Your task to perform on an android device: toggle improve location accuracy Image 0: 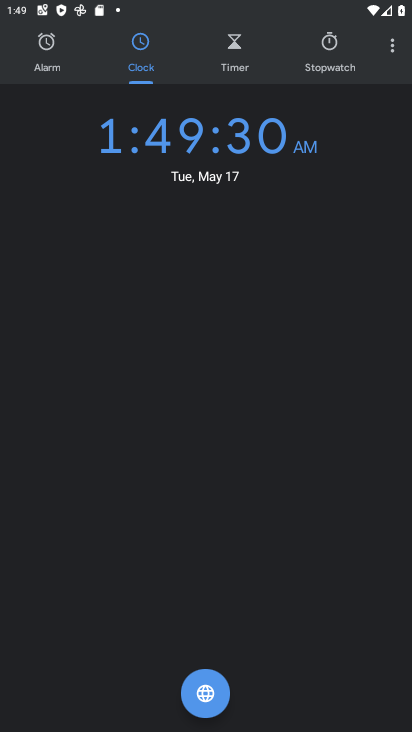
Step 0: press home button
Your task to perform on an android device: toggle improve location accuracy Image 1: 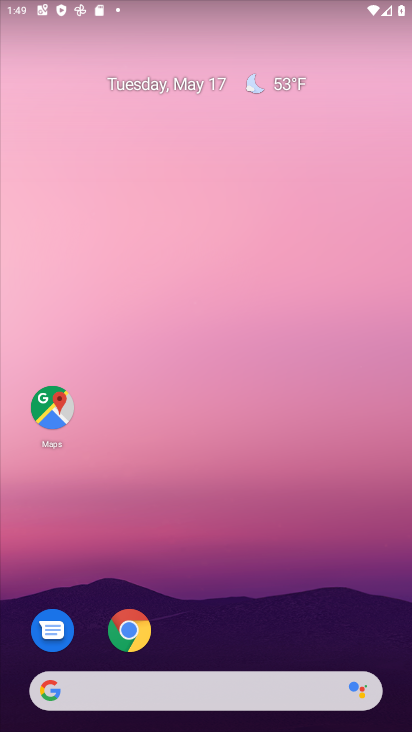
Step 1: drag from (308, 572) to (351, 272)
Your task to perform on an android device: toggle improve location accuracy Image 2: 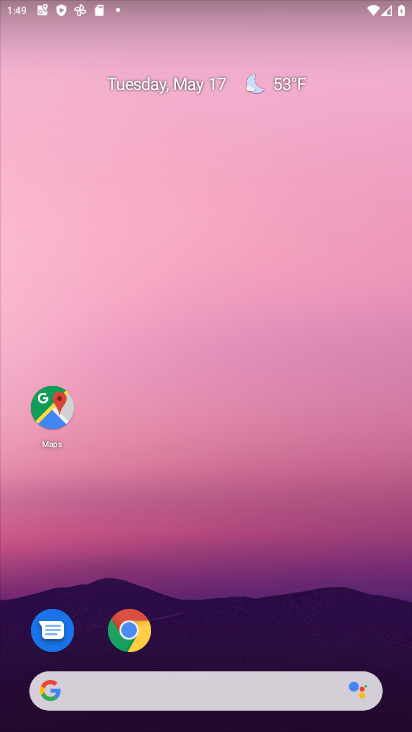
Step 2: drag from (234, 616) to (258, 198)
Your task to perform on an android device: toggle improve location accuracy Image 3: 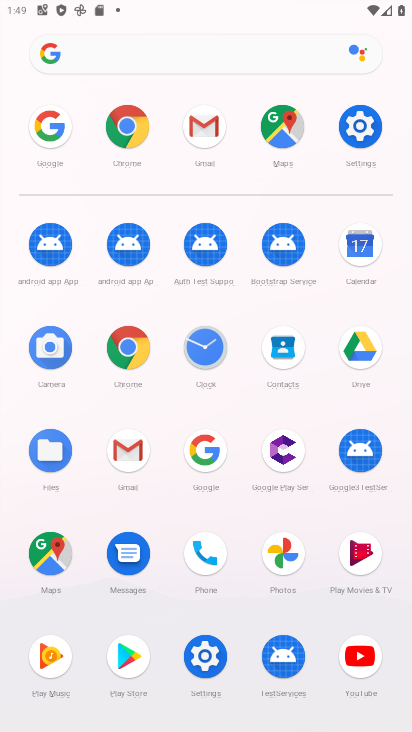
Step 3: click (377, 132)
Your task to perform on an android device: toggle improve location accuracy Image 4: 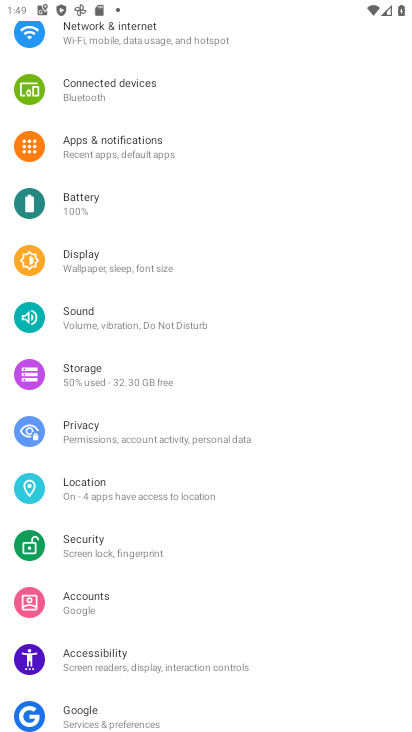
Step 4: click (166, 495)
Your task to perform on an android device: toggle improve location accuracy Image 5: 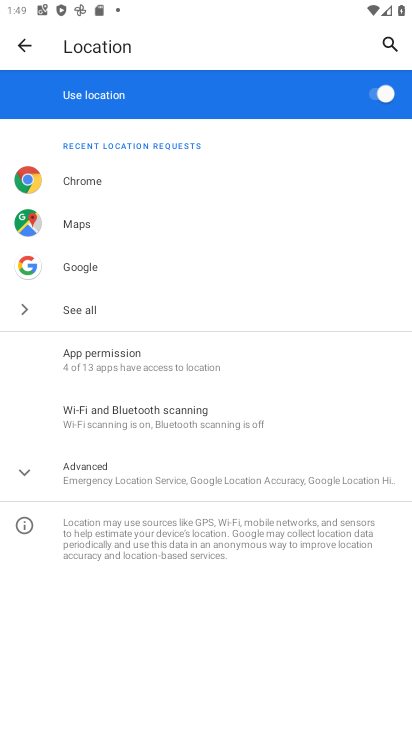
Step 5: click (164, 483)
Your task to perform on an android device: toggle improve location accuracy Image 6: 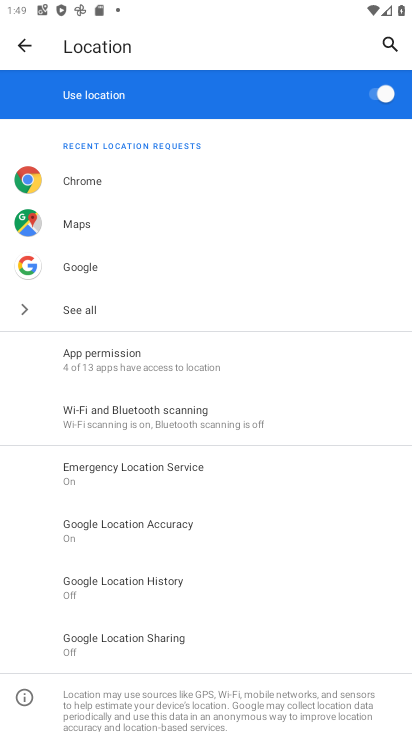
Step 6: click (149, 531)
Your task to perform on an android device: toggle improve location accuracy Image 7: 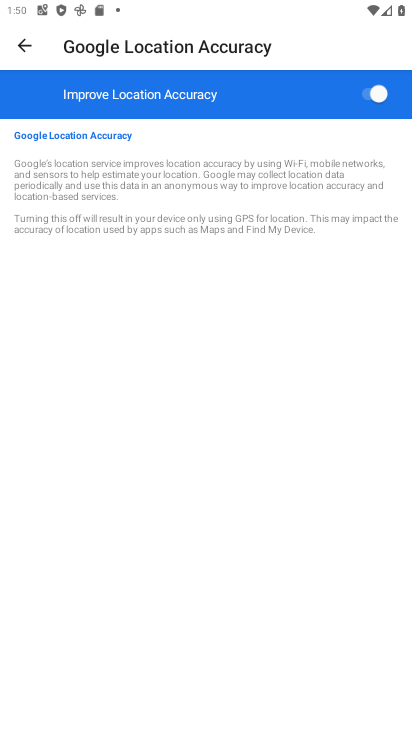
Step 7: click (378, 95)
Your task to perform on an android device: toggle improve location accuracy Image 8: 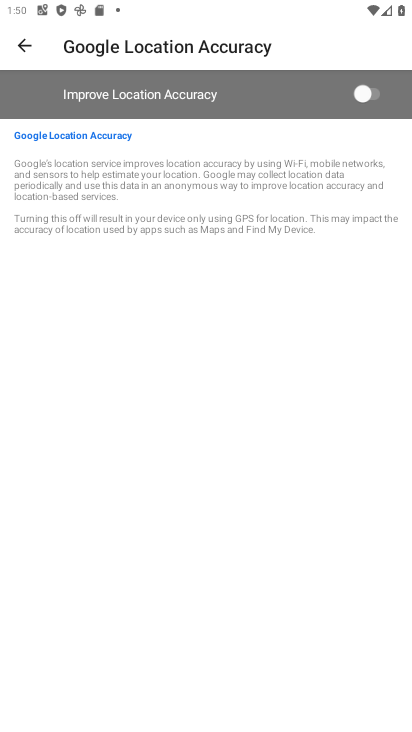
Step 8: task complete